Your task to perform on an android device: change text size in settings app Image 0: 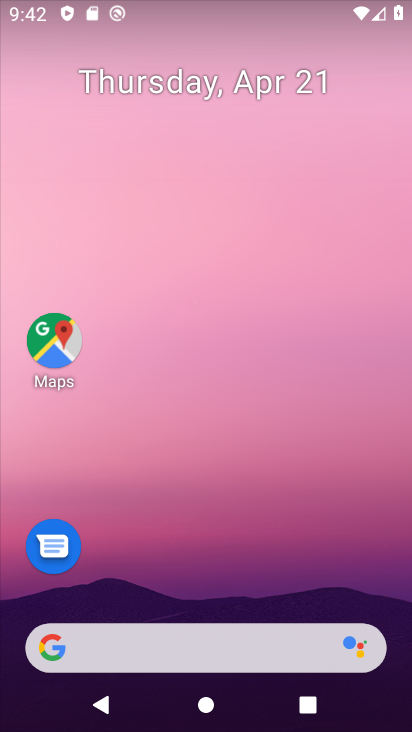
Step 0: drag from (206, 413) to (268, 50)
Your task to perform on an android device: change text size in settings app Image 1: 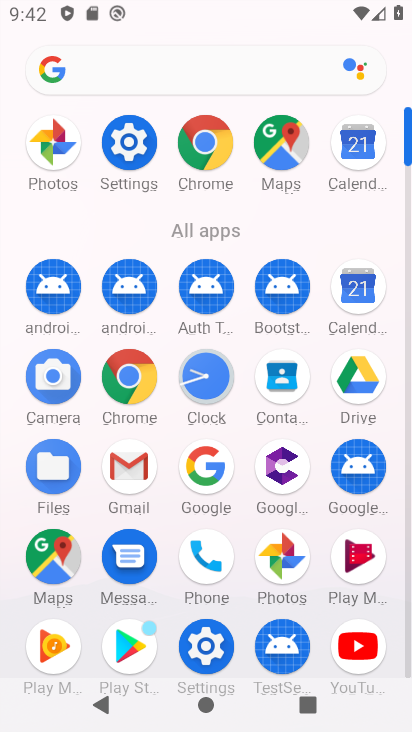
Step 1: click (204, 648)
Your task to perform on an android device: change text size in settings app Image 2: 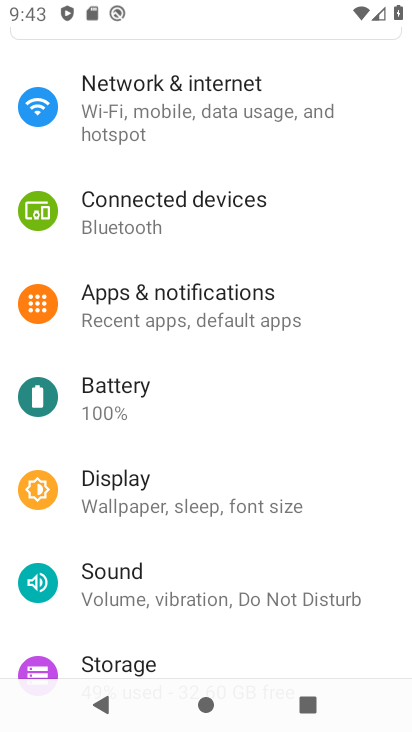
Step 2: drag from (192, 540) to (267, 301)
Your task to perform on an android device: change text size in settings app Image 3: 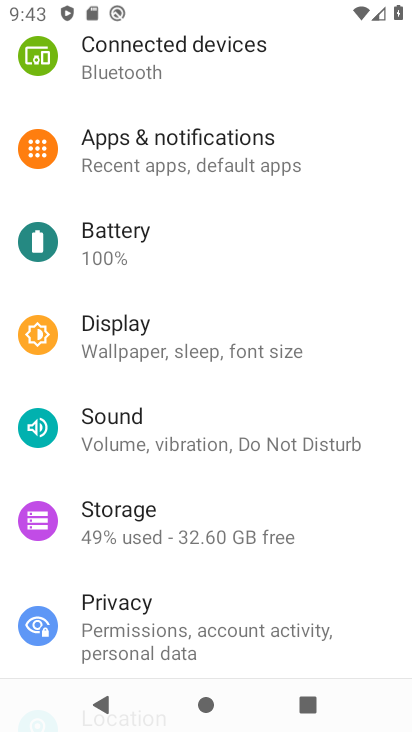
Step 3: click (146, 317)
Your task to perform on an android device: change text size in settings app Image 4: 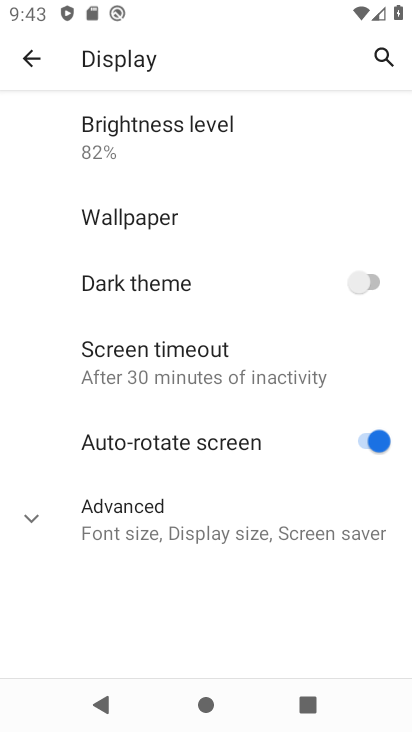
Step 4: click (203, 526)
Your task to perform on an android device: change text size in settings app Image 5: 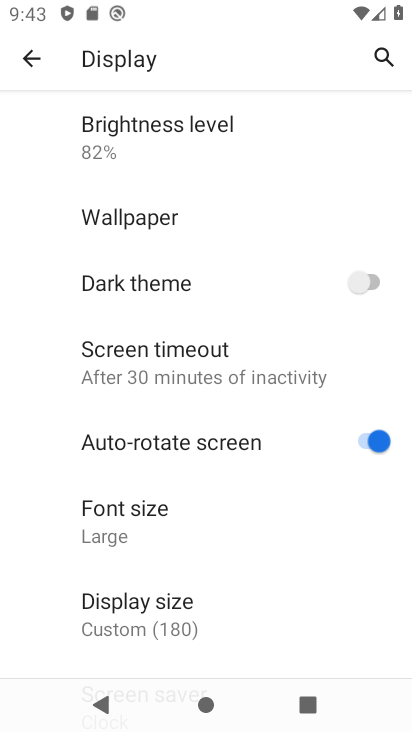
Step 5: click (203, 544)
Your task to perform on an android device: change text size in settings app Image 6: 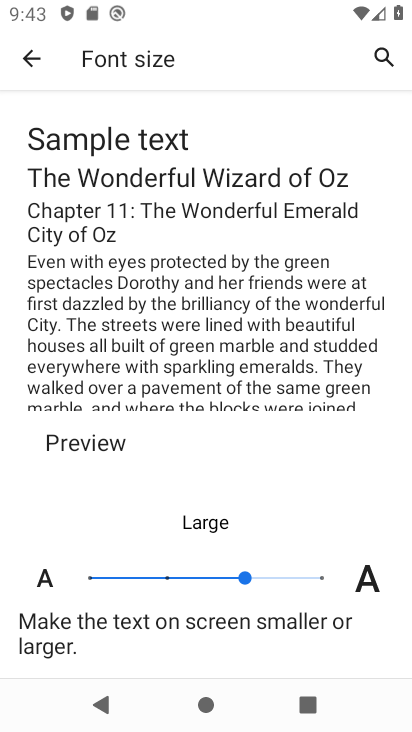
Step 6: click (175, 580)
Your task to perform on an android device: change text size in settings app Image 7: 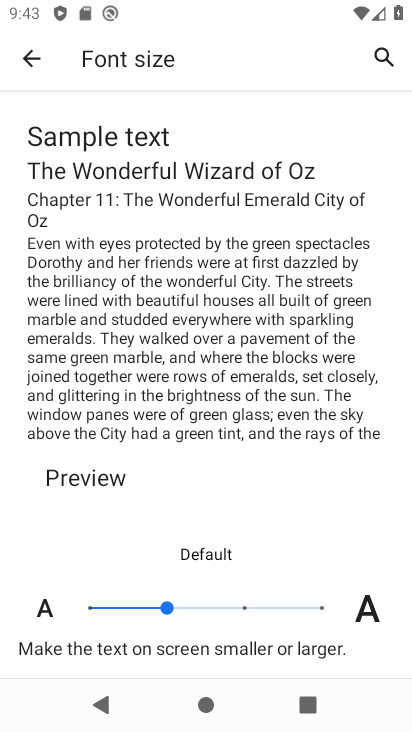
Step 7: task complete